Your task to perform on an android device: remove spam from my inbox in the gmail app Image 0: 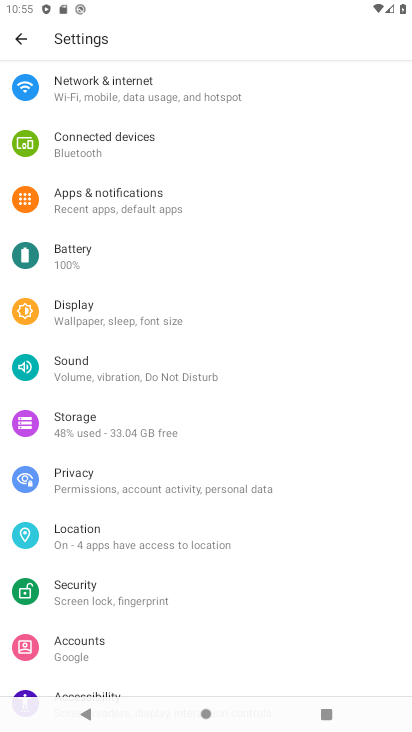
Step 0: press home button
Your task to perform on an android device: remove spam from my inbox in the gmail app Image 1: 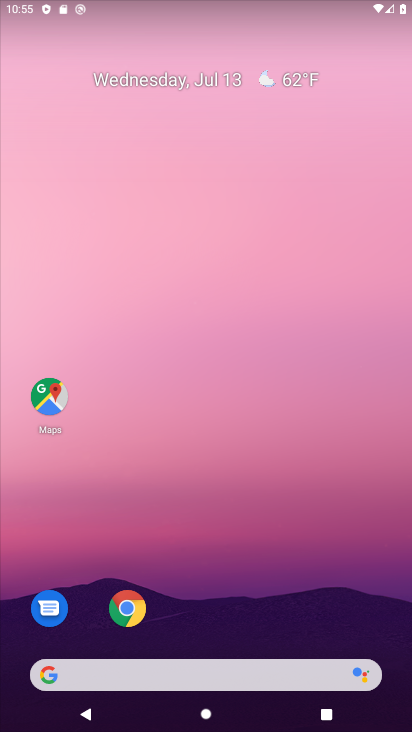
Step 1: drag from (258, 717) to (235, 154)
Your task to perform on an android device: remove spam from my inbox in the gmail app Image 2: 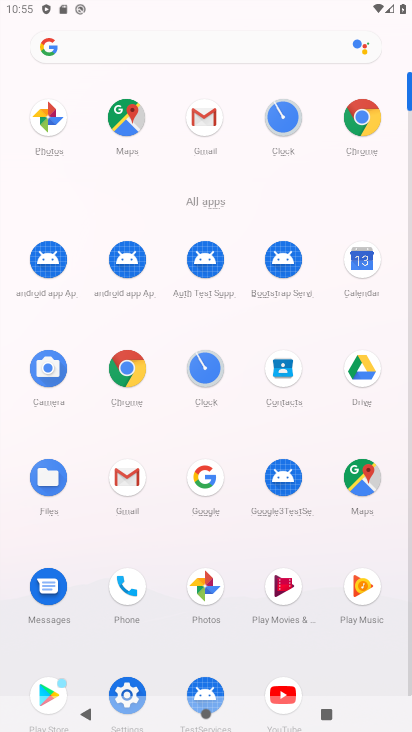
Step 2: click (127, 480)
Your task to perform on an android device: remove spam from my inbox in the gmail app Image 3: 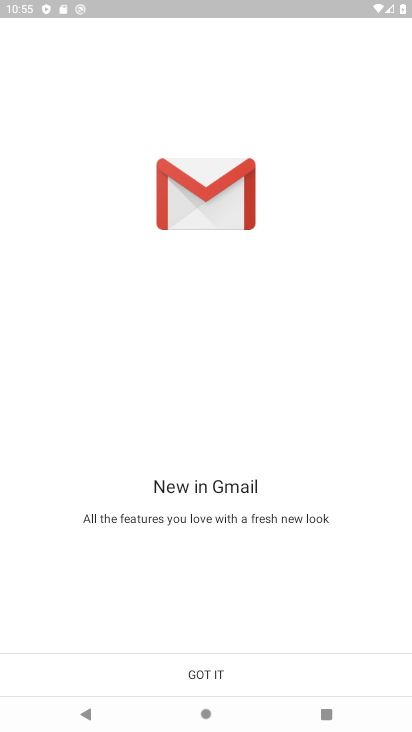
Step 3: click (218, 676)
Your task to perform on an android device: remove spam from my inbox in the gmail app Image 4: 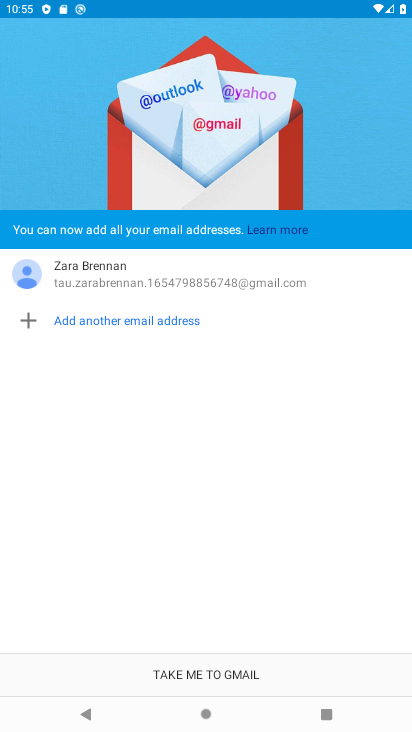
Step 4: click (217, 677)
Your task to perform on an android device: remove spam from my inbox in the gmail app Image 5: 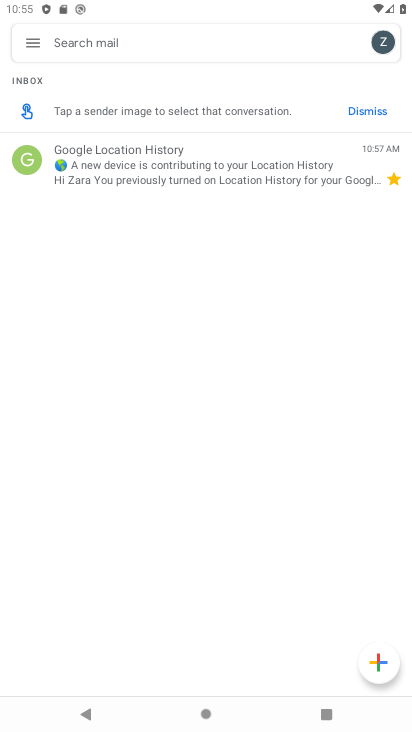
Step 5: task complete